Your task to perform on an android device: toggle data saver in the chrome app Image 0: 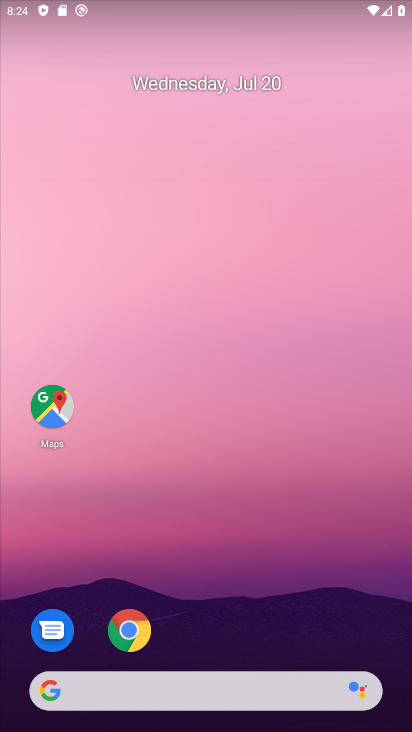
Step 0: click (119, 630)
Your task to perform on an android device: toggle data saver in the chrome app Image 1: 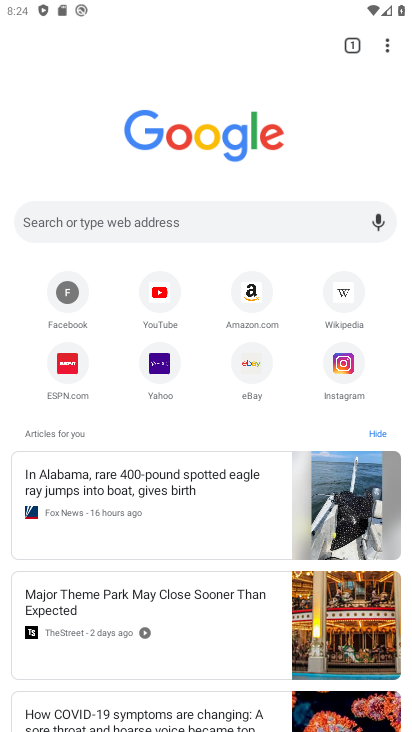
Step 1: click (383, 37)
Your task to perform on an android device: toggle data saver in the chrome app Image 2: 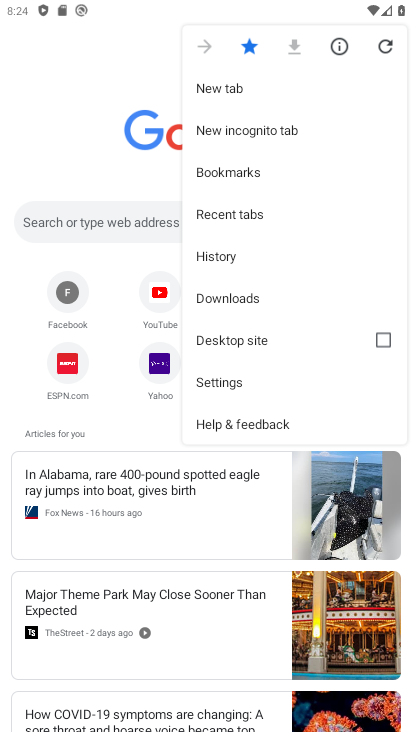
Step 2: click (256, 381)
Your task to perform on an android device: toggle data saver in the chrome app Image 3: 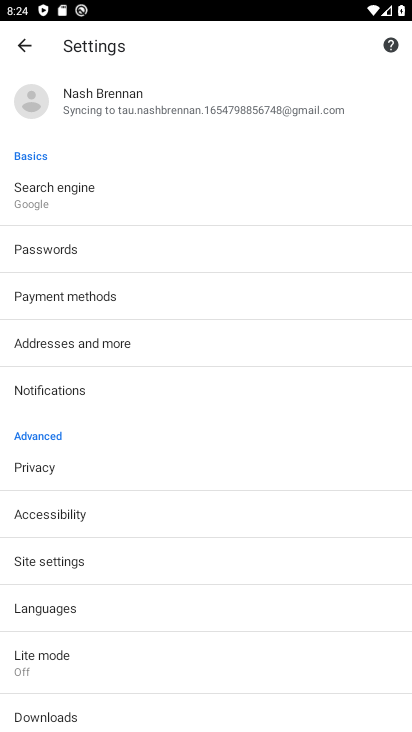
Step 3: click (125, 646)
Your task to perform on an android device: toggle data saver in the chrome app Image 4: 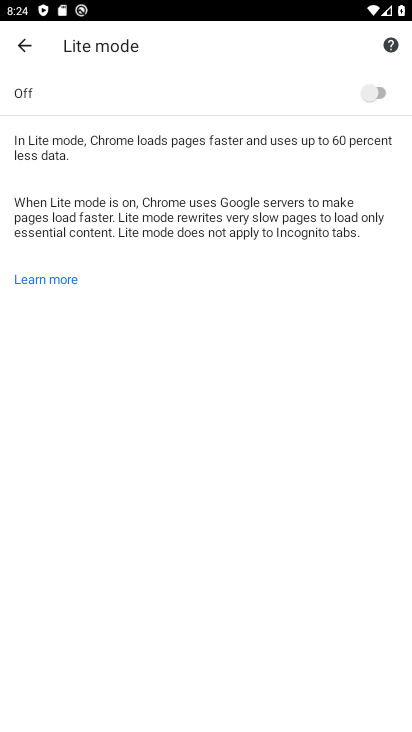
Step 4: click (360, 89)
Your task to perform on an android device: toggle data saver in the chrome app Image 5: 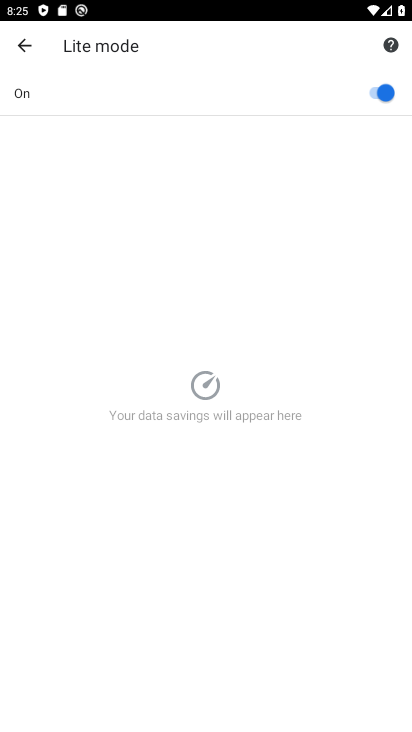
Step 5: task complete